Your task to perform on an android device: turn on bluetooth scan Image 0: 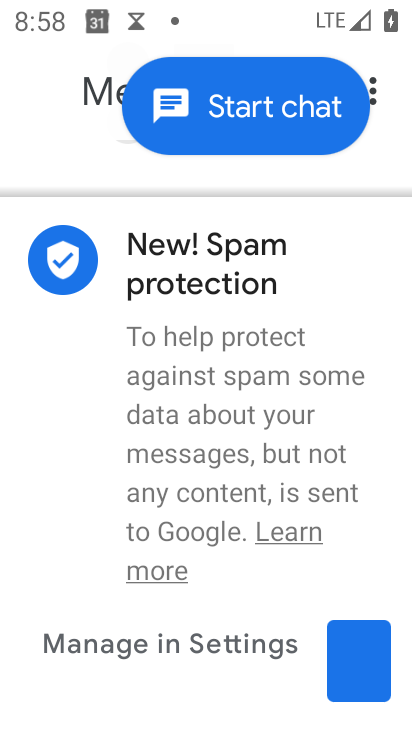
Step 0: press home button
Your task to perform on an android device: turn on bluetooth scan Image 1: 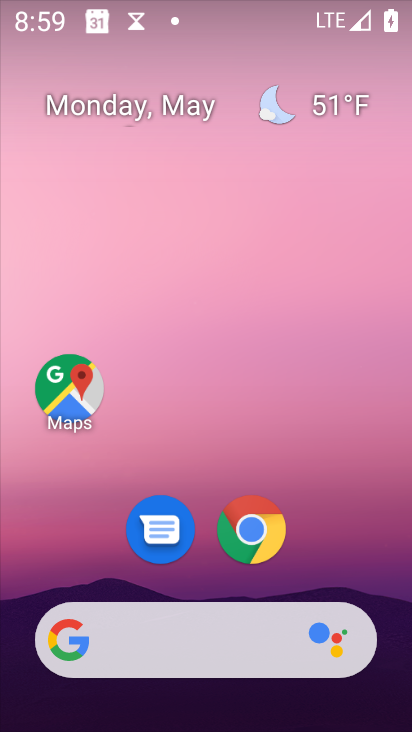
Step 1: drag from (44, 665) to (261, 184)
Your task to perform on an android device: turn on bluetooth scan Image 2: 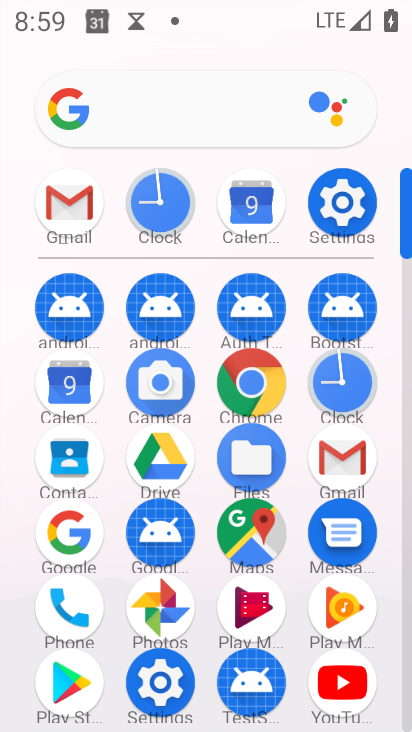
Step 2: click (337, 190)
Your task to perform on an android device: turn on bluetooth scan Image 3: 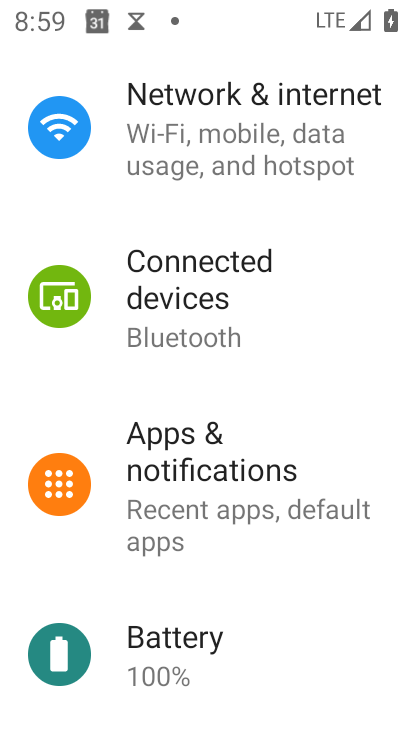
Step 3: drag from (168, 688) to (247, 213)
Your task to perform on an android device: turn on bluetooth scan Image 4: 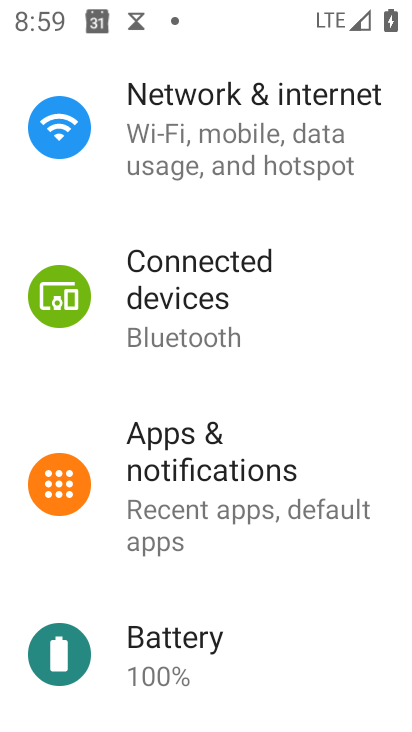
Step 4: drag from (66, 649) to (287, 130)
Your task to perform on an android device: turn on bluetooth scan Image 5: 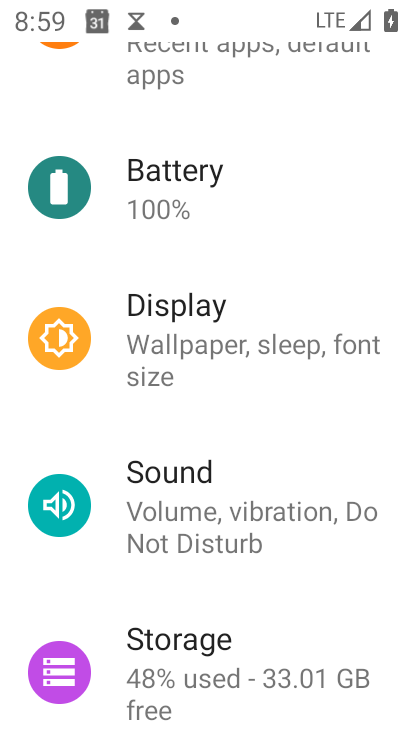
Step 5: drag from (125, 678) to (315, 244)
Your task to perform on an android device: turn on bluetooth scan Image 6: 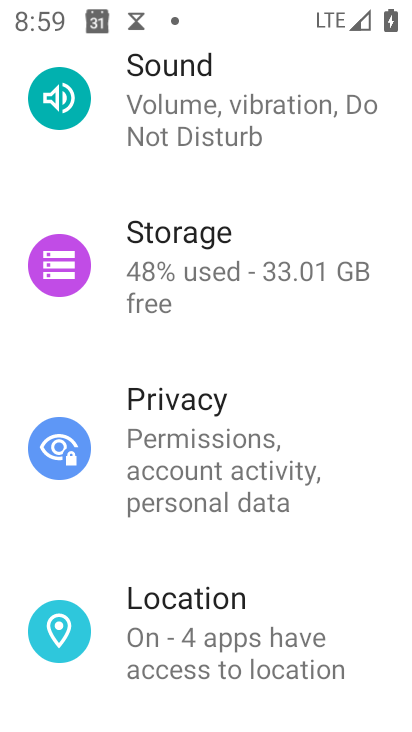
Step 6: click (138, 653)
Your task to perform on an android device: turn on bluetooth scan Image 7: 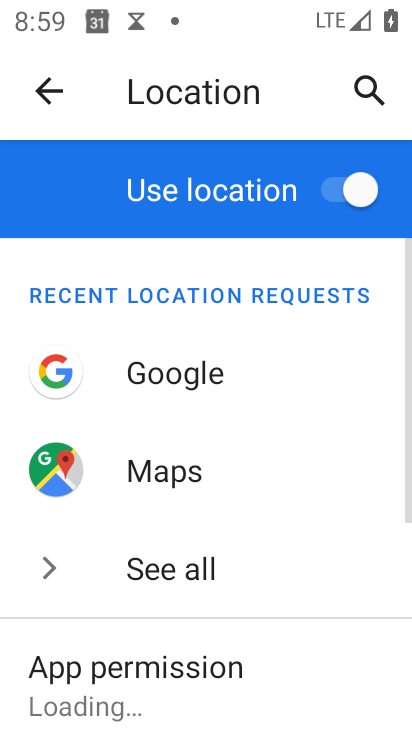
Step 7: drag from (181, 672) to (355, 221)
Your task to perform on an android device: turn on bluetooth scan Image 8: 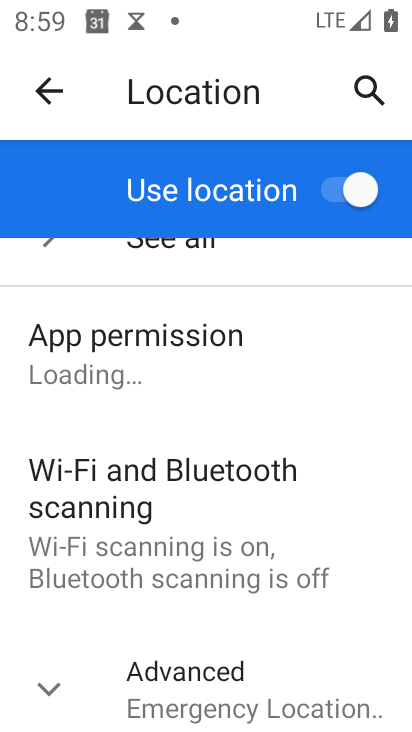
Step 8: click (128, 511)
Your task to perform on an android device: turn on bluetooth scan Image 9: 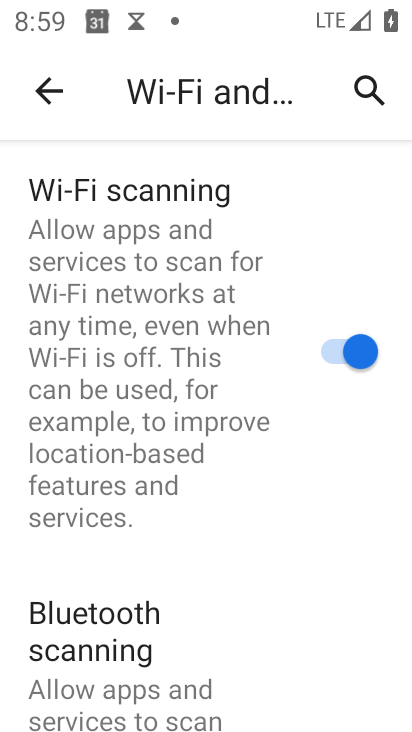
Step 9: drag from (142, 686) to (285, 286)
Your task to perform on an android device: turn on bluetooth scan Image 10: 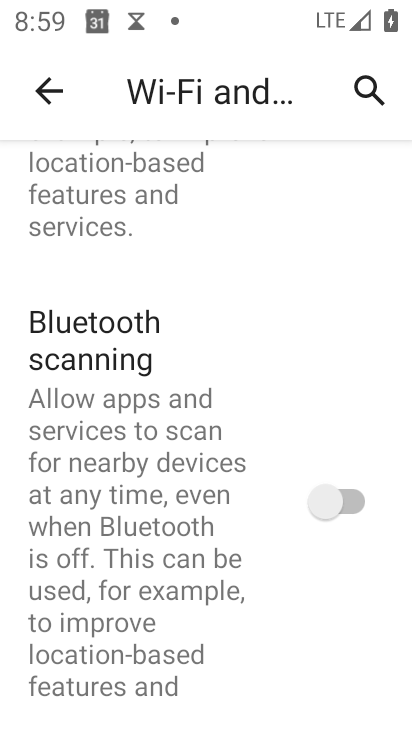
Step 10: click (320, 495)
Your task to perform on an android device: turn on bluetooth scan Image 11: 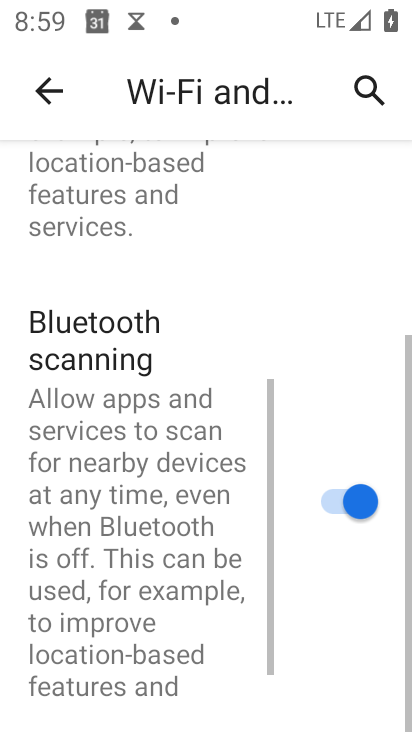
Step 11: task complete